Your task to perform on an android device: Go to network settings Image 0: 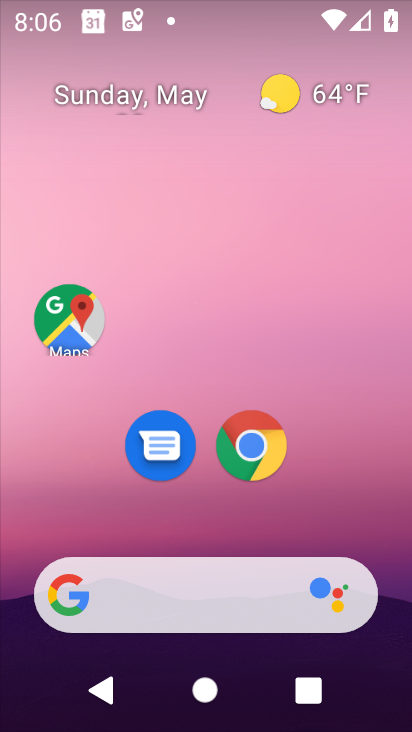
Step 0: drag from (217, 539) to (212, 118)
Your task to perform on an android device: Go to network settings Image 1: 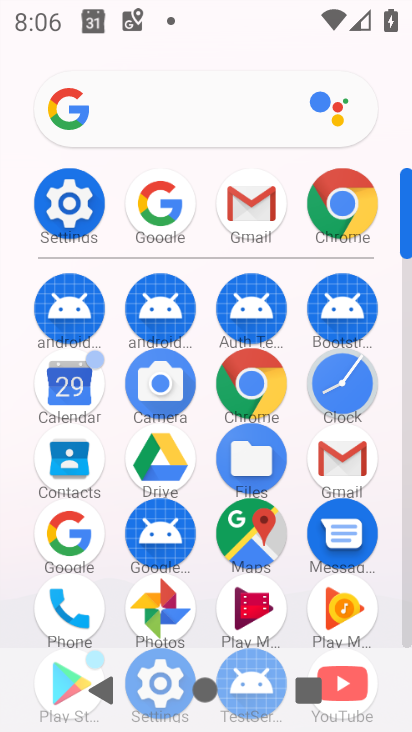
Step 1: click (69, 223)
Your task to perform on an android device: Go to network settings Image 2: 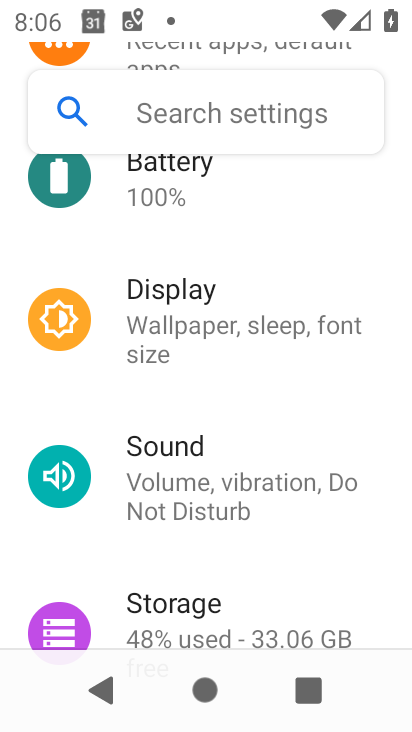
Step 2: drag from (178, 254) to (286, 727)
Your task to perform on an android device: Go to network settings Image 3: 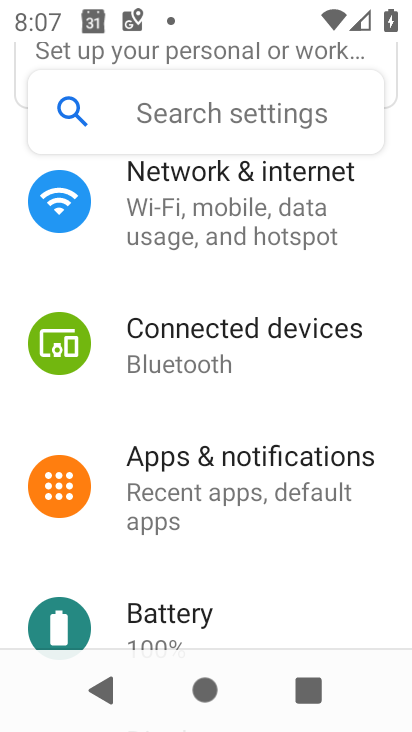
Step 3: click (196, 208)
Your task to perform on an android device: Go to network settings Image 4: 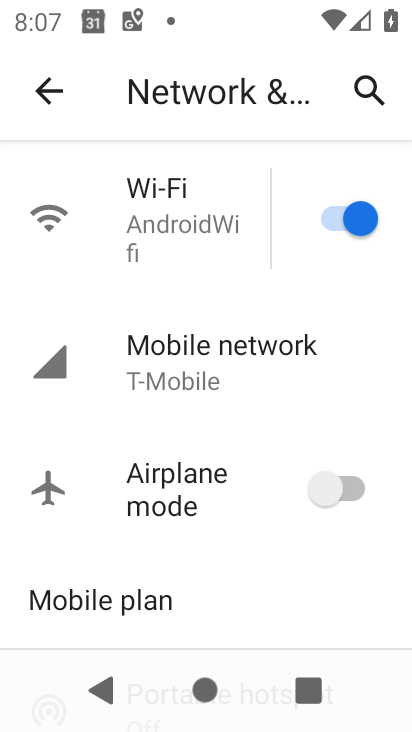
Step 4: task complete